Your task to perform on an android device: turn on bluetooth scan Image 0: 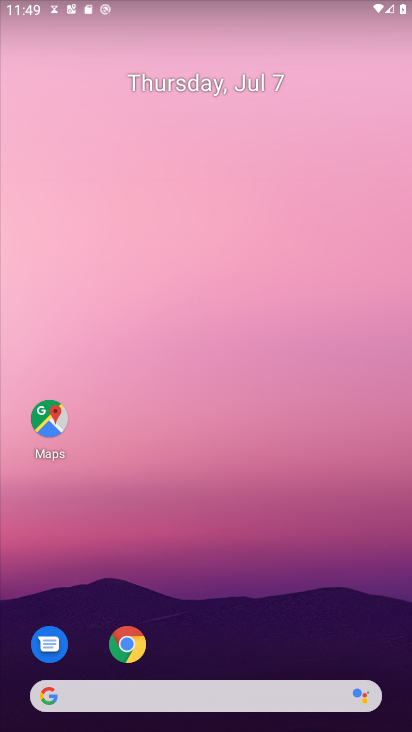
Step 0: press home button
Your task to perform on an android device: turn on bluetooth scan Image 1: 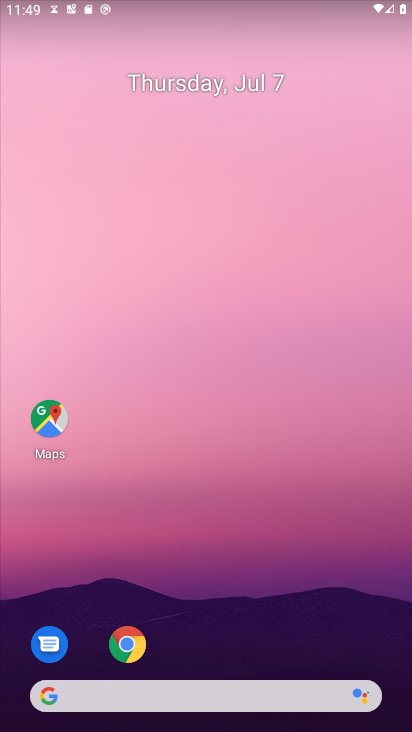
Step 1: drag from (301, 614) to (338, 98)
Your task to perform on an android device: turn on bluetooth scan Image 2: 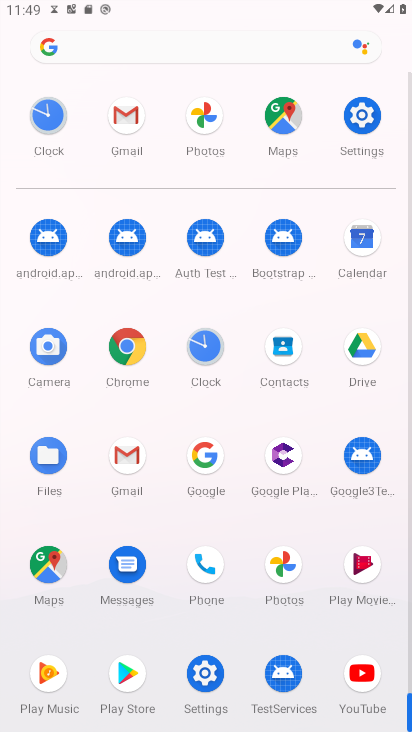
Step 2: click (356, 123)
Your task to perform on an android device: turn on bluetooth scan Image 3: 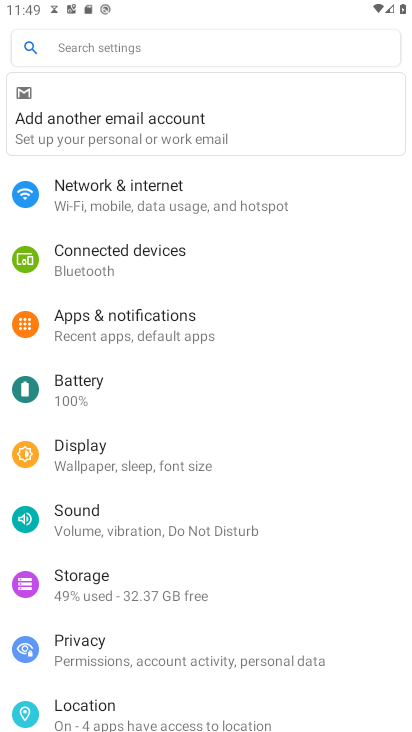
Step 3: drag from (179, 693) to (241, 285)
Your task to perform on an android device: turn on bluetooth scan Image 4: 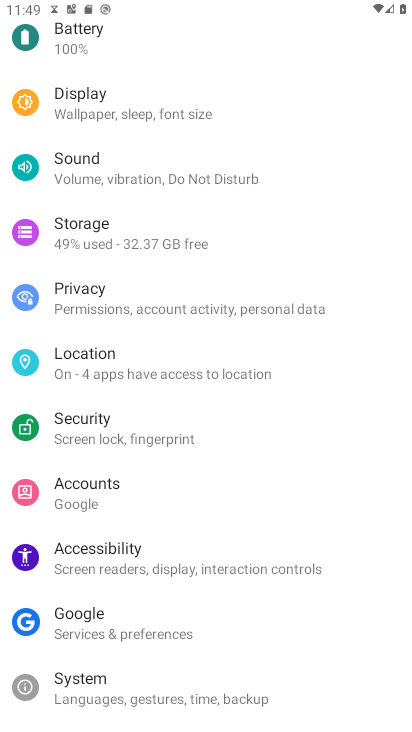
Step 4: click (105, 360)
Your task to perform on an android device: turn on bluetooth scan Image 5: 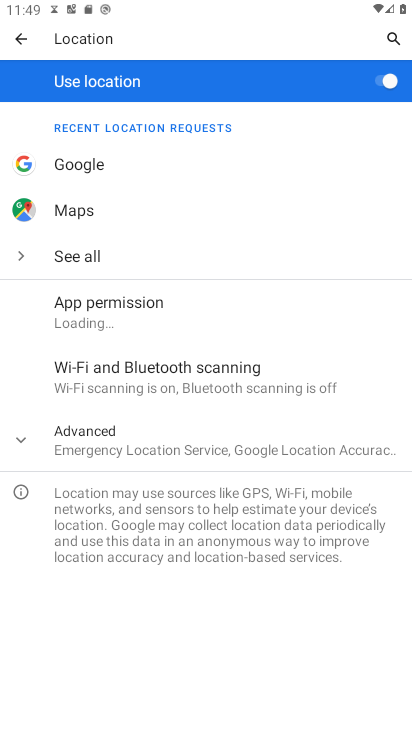
Step 5: click (98, 370)
Your task to perform on an android device: turn on bluetooth scan Image 6: 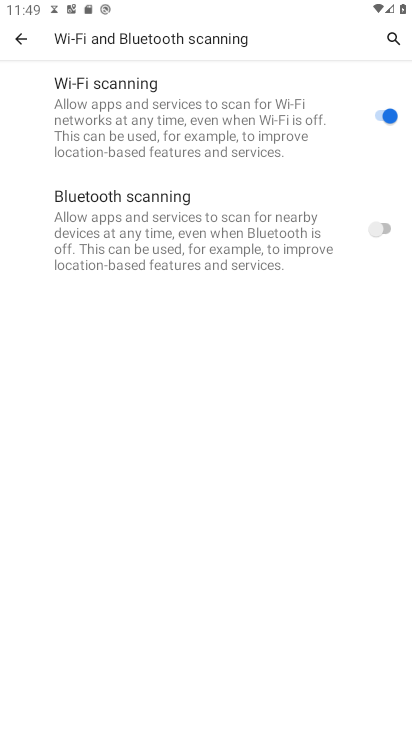
Step 6: click (386, 221)
Your task to perform on an android device: turn on bluetooth scan Image 7: 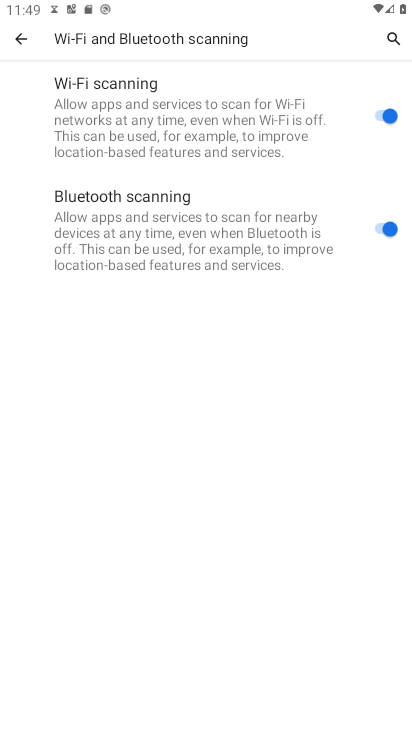
Step 7: task complete